Your task to perform on an android device: turn off translation in the chrome app Image 0: 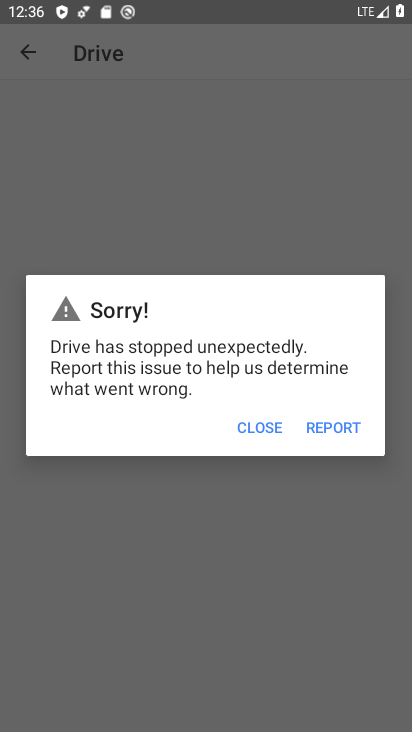
Step 0: press home button
Your task to perform on an android device: turn off translation in the chrome app Image 1: 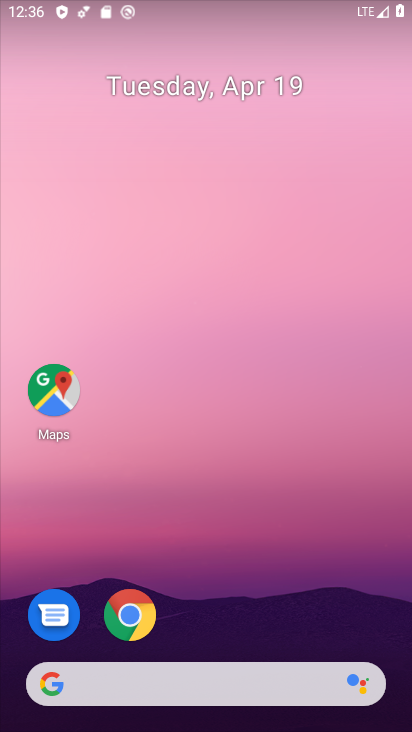
Step 1: drag from (365, 502) to (369, 67)
Your task to perform on an android device: turn off translation in the chrome app Image 2: 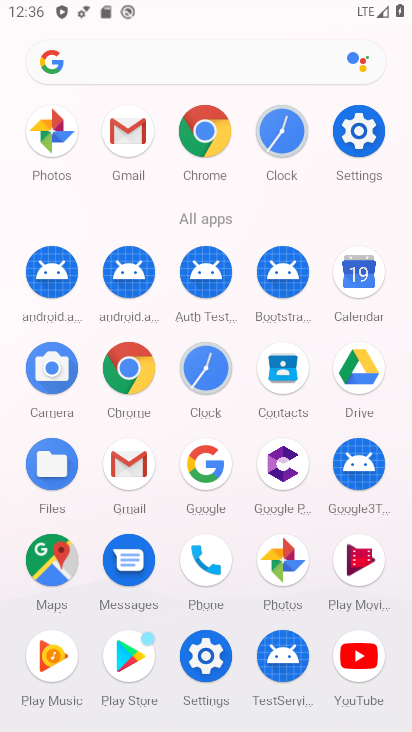
Step 2: click (129, 373)
Your task to perform on an android device: turn off translation in the chrome app Image 3: 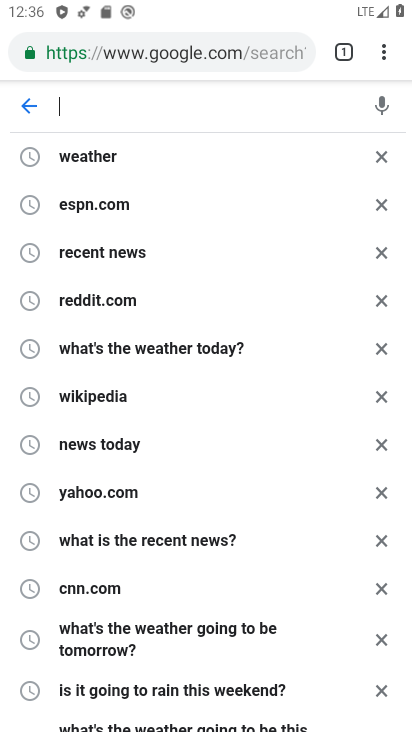
Step 3: drag from (385, 48) to (222, 653)
Your task to perform on an android device: turn off translation in the chrome app Image 4: 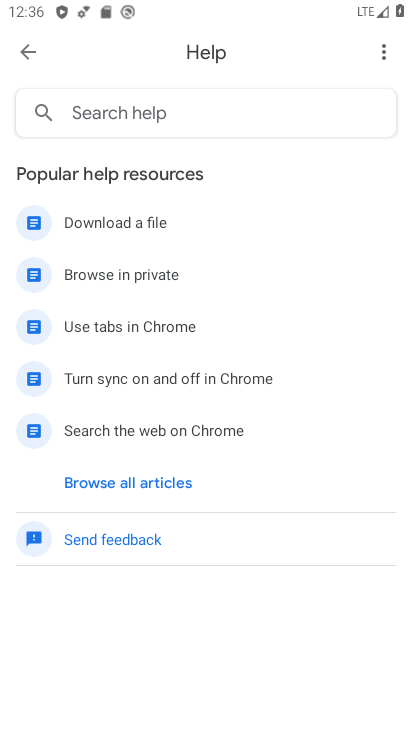
Step 4: click (28, 46)
Your task to perform on an android device: turn off translation in the chrome app Image 5: 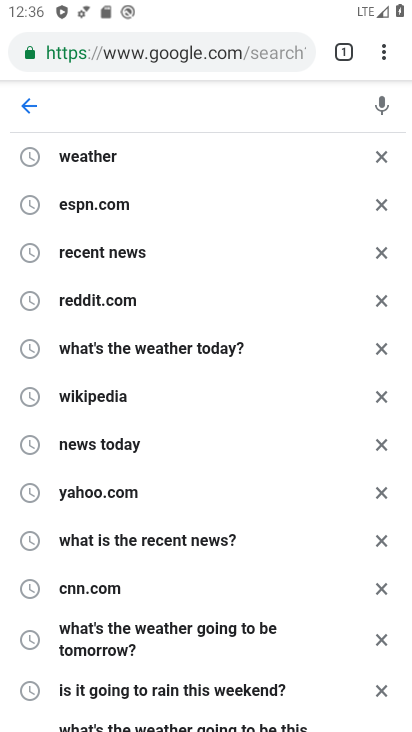
Step 5: drag from (381, 46) to (204, 608)
Your task to perform on an android device: turn off translation in the chrome app Image 6: 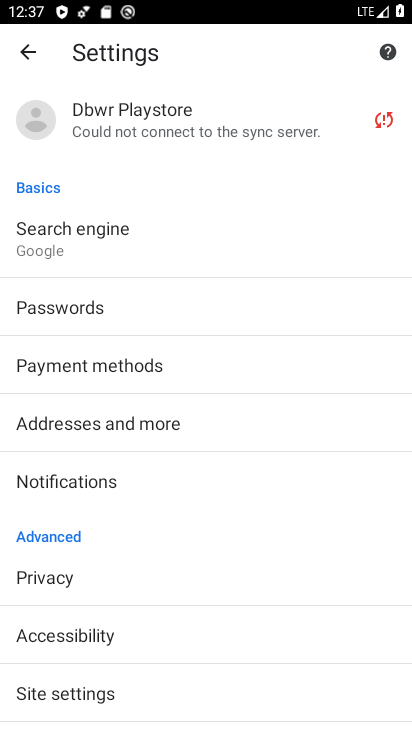
Step 6: drag from (351, 658) to (374, 258)
Your task to perform on an android device: turn off translation in the chrome app Image 7: 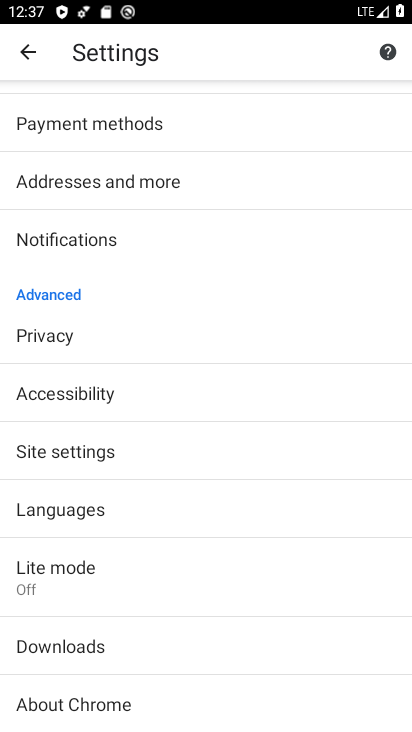
Step 7: click (89, 506)
Your task to perform on an android device: turn off translation in the chrome app Image 8: 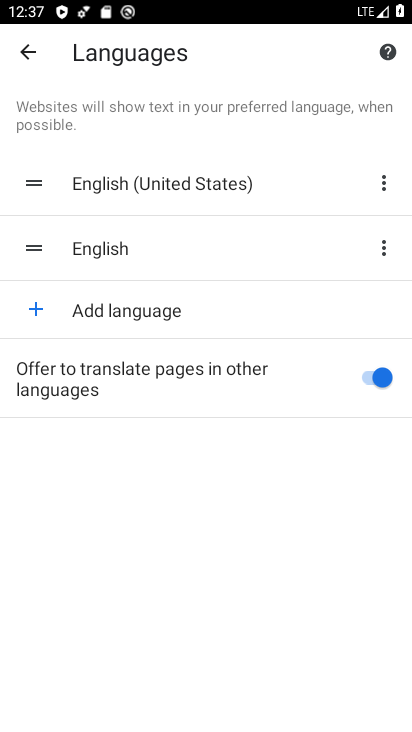
Step 8: click (371, 374)
Your task to perform on an android device: turn off translation in the chrome app Image 9: 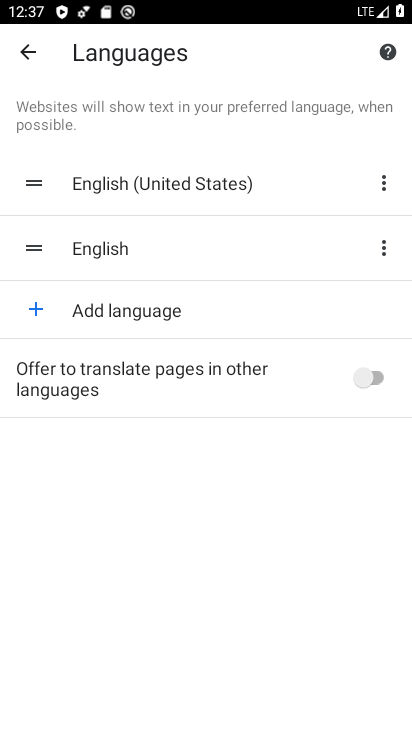
Step 9: task complete